Your task to perform on an android device: open app "Messages" Image 0: 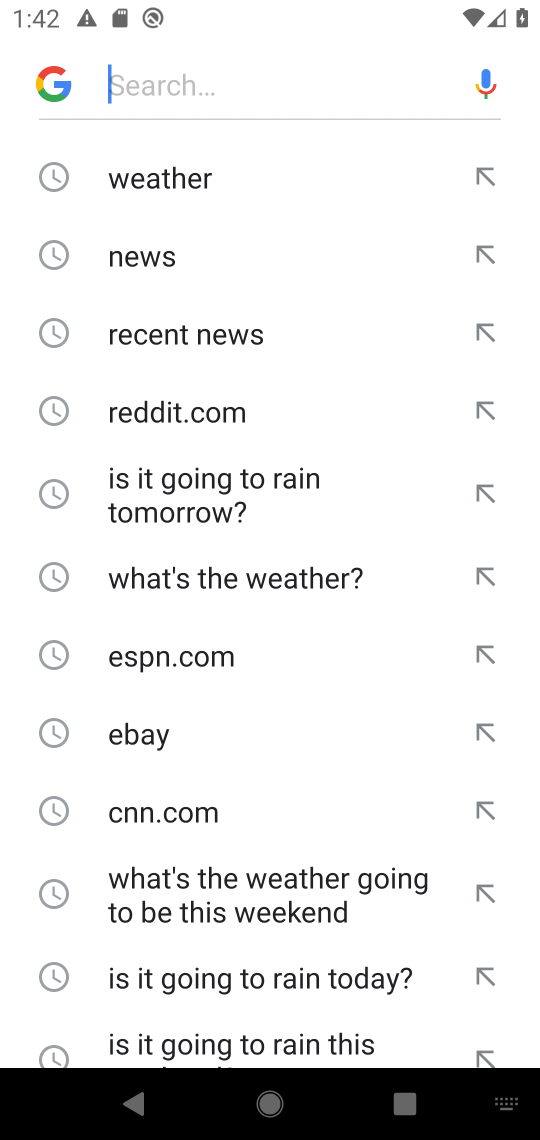
Step 0: press back button
Your task to perform on an android device: open app "Messages" Image 1: 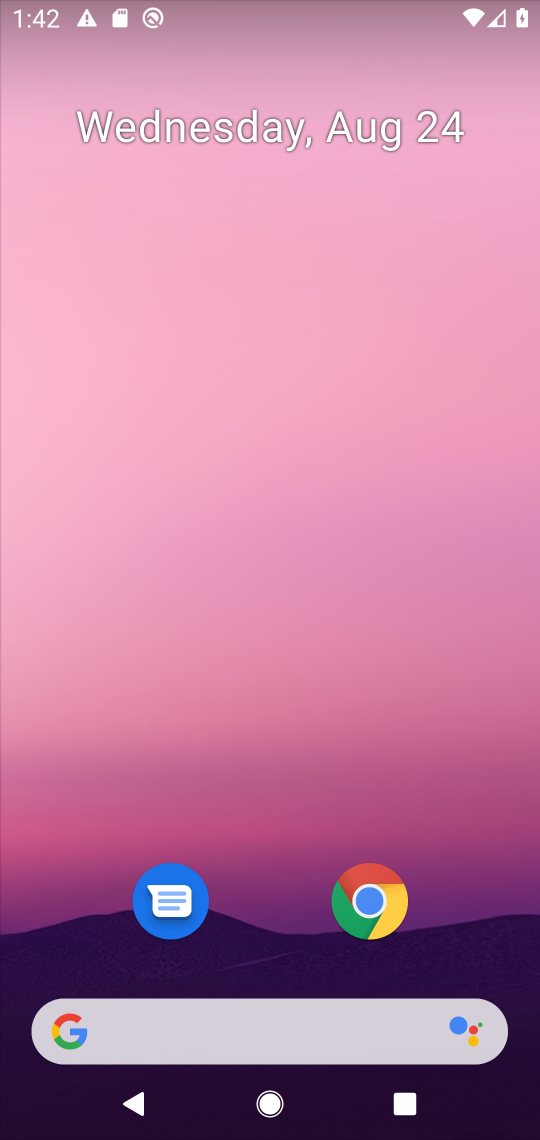
Step 1: drag from (250, 921) to (335, 151)
Your task to perform on an android device: open app "Messages" Image 2: 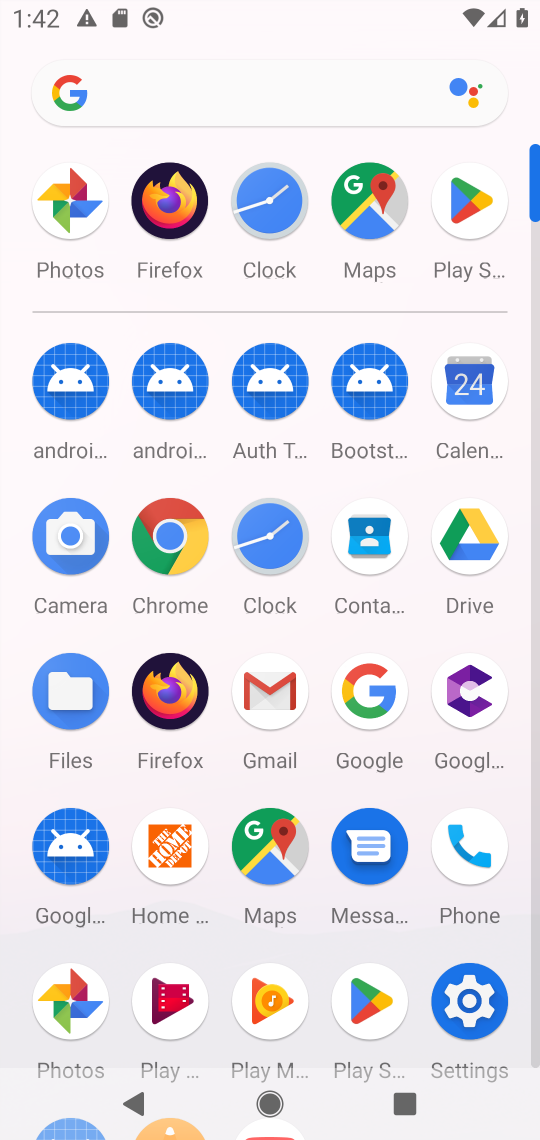
Step 2: click (376, 844)
Your task to perform on an android device: open app "Messages" Image 3: 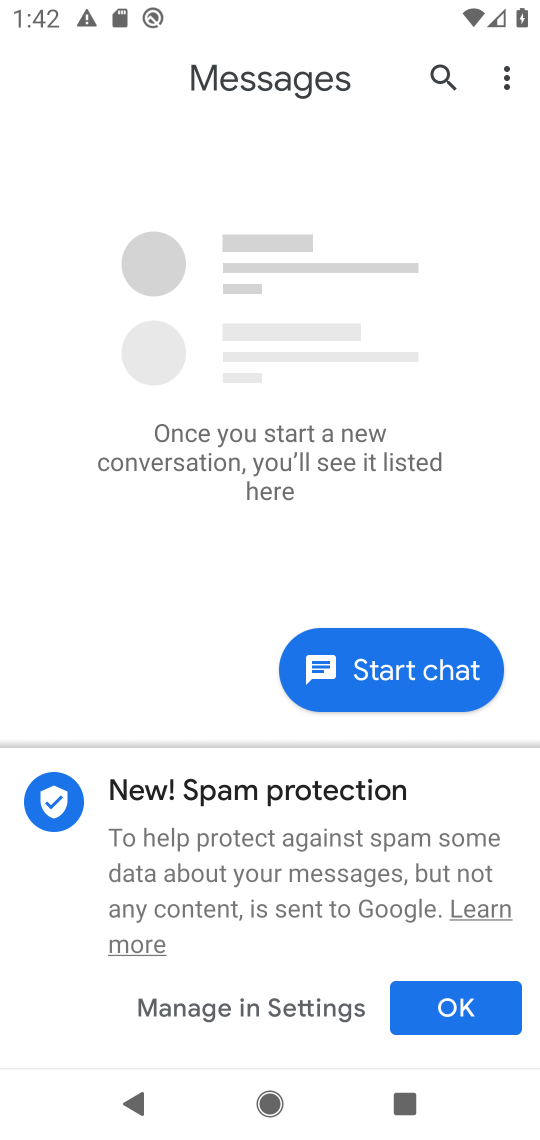
Step 3: task complete